Your task to perform on an android device: Go to settings Image 0: 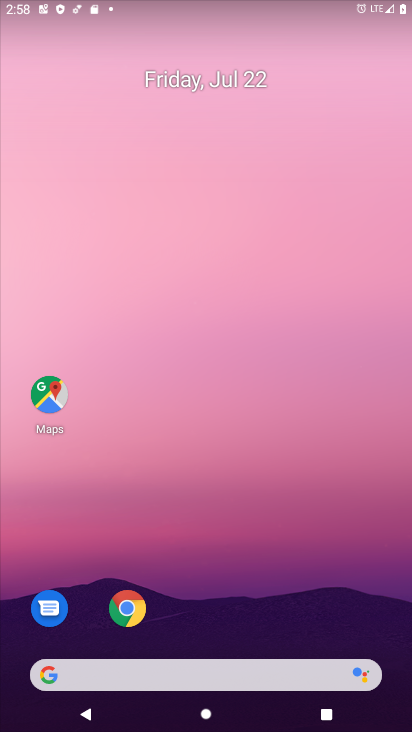
Step 0: drag from (346, 598) to (246, 43)
Your task to perform on an android device: Go to settings Image 1: 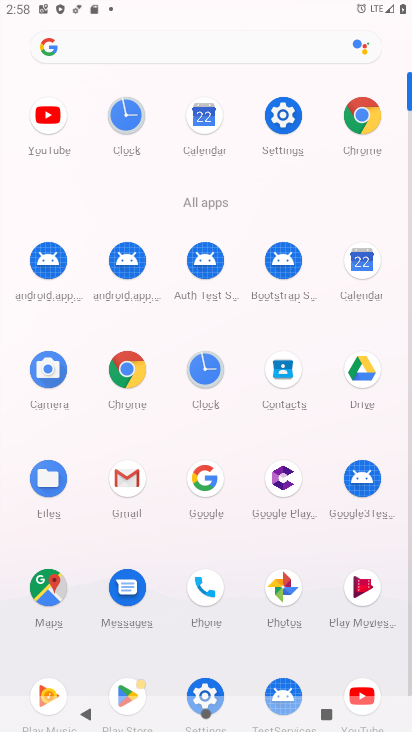
Step 1: click (209, 688)
Your task to perform on an android device: Go to settings Image 2: 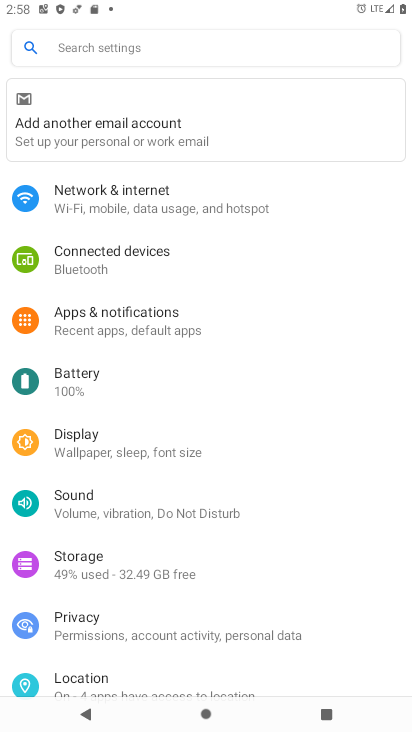
Step 2: task complete